Your task to perform on an android device: check android version Image 0: 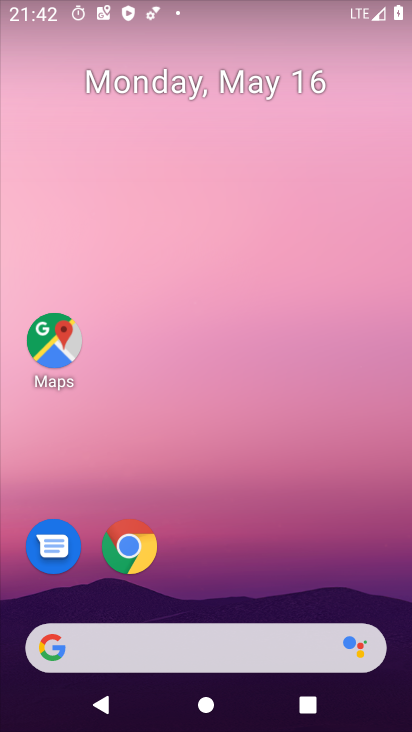
Step 0: drag from (263, 676) to (232, 159)
Your task to perform on an android device: check android version Image 1: 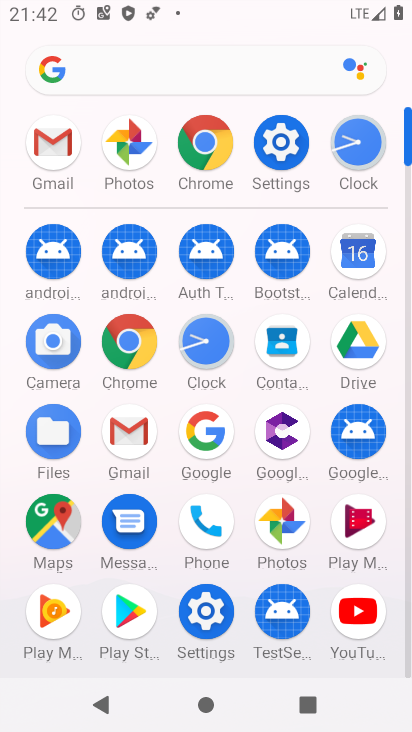
Step 1: click (272, 142)
Your task to perform on an android device: check android version Image 2: 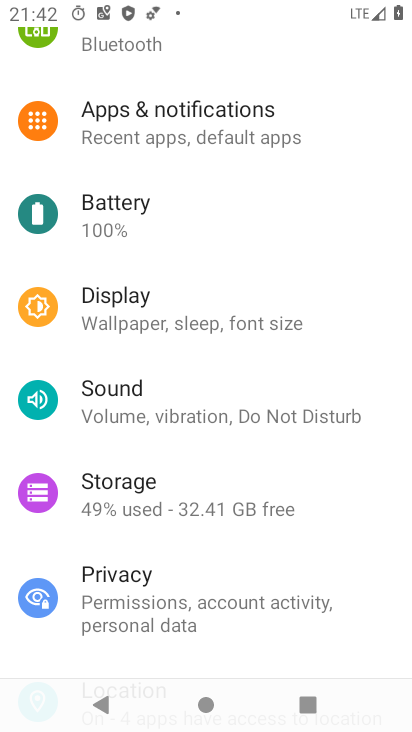
Step 2: drag from (163, 127) to (180, 392)
Your task to perform on an android device: check android version Image 3: 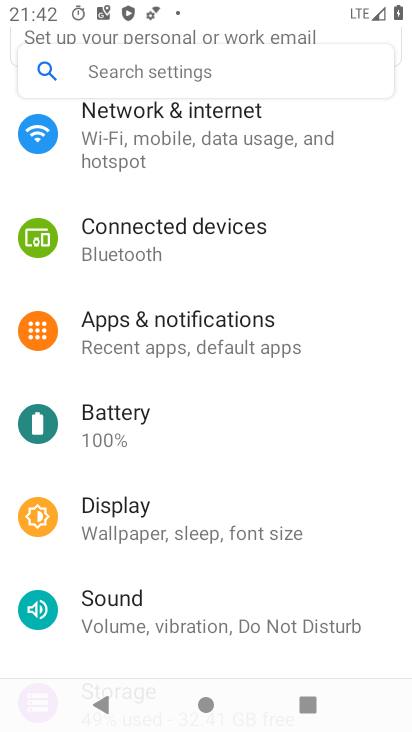
Step 3: click (148, 76)
Your task to perform on an android device: check android version Image 4: 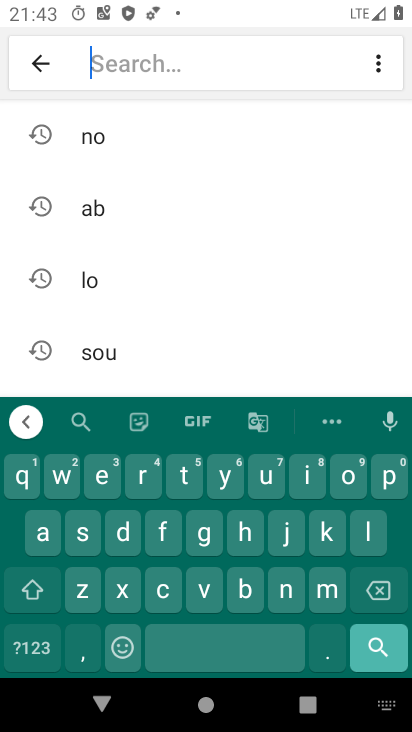
Step 4: click (43, 529)
Your task to perform on an android device: check android version Image 5: 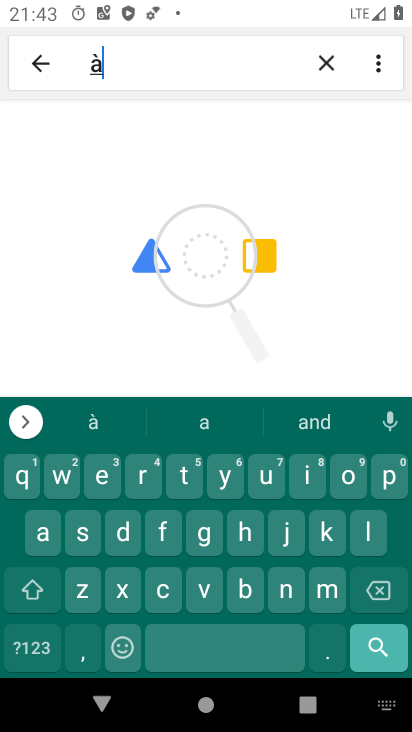
Step 5: click (280, 598)
Your task to perform on an android device: check android version Image 6: 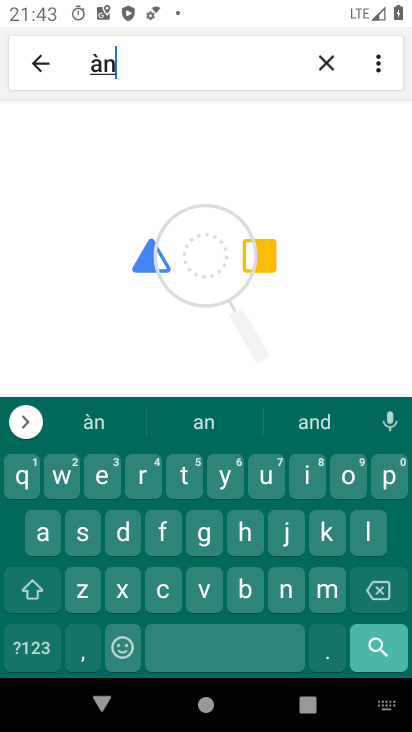
Step 6: click (372, 604)
Your task to perform on an android device: check android version Image 7: 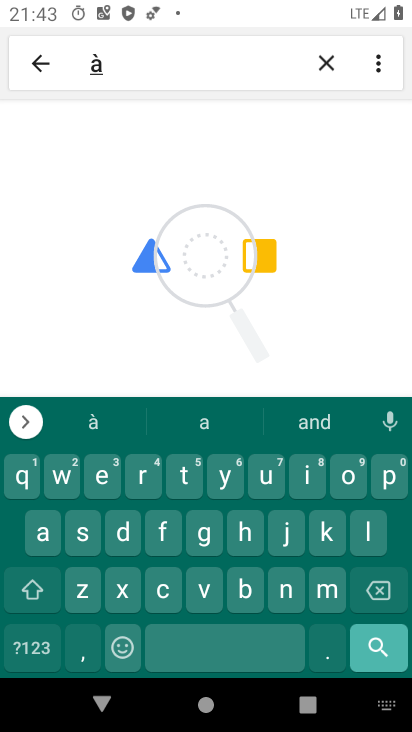
Step 7: click (372, 604)
Your task to perform on an android device: check android version Image 8: 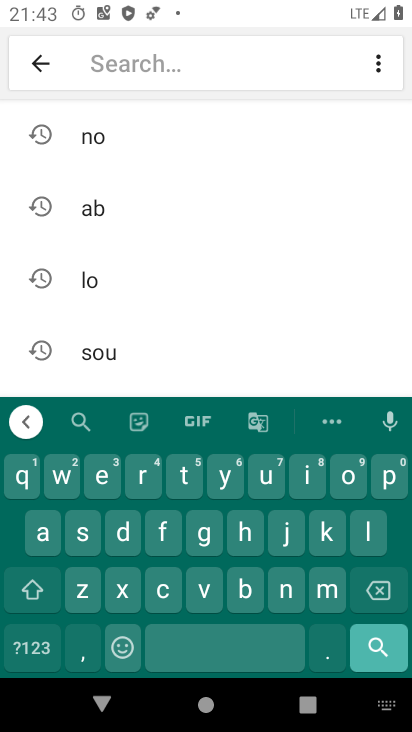
Step 8: click (40, 547)
Your task to perform on an android device: check android version Image 9: 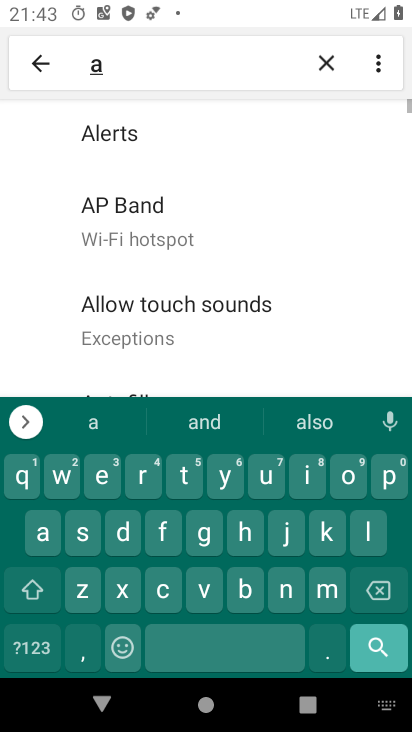
Step 9: click (287, 585)
Your task to perform on an android device: check android version Image 10: 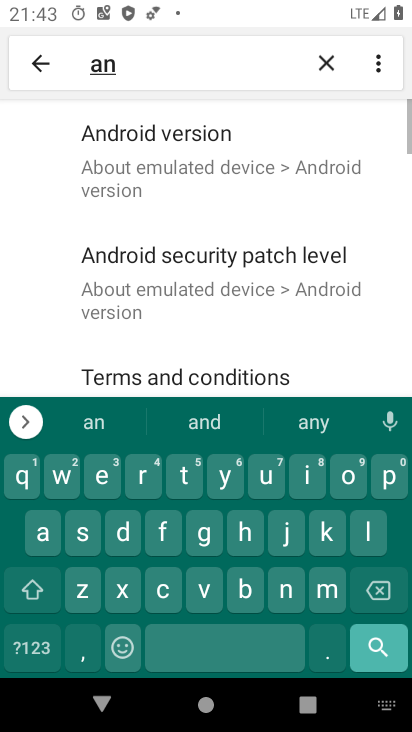
Step 10: click (169, 176)
Your task to perform on an android device: check android version Image 11: 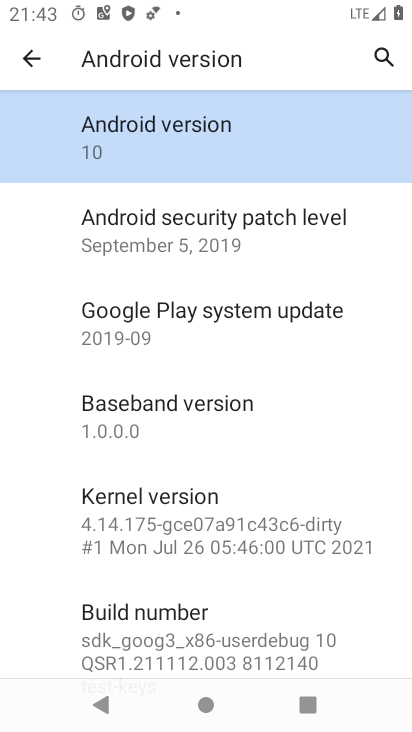
Step 11: task complete